Your task to perform on an android device: check data usage Image 0: 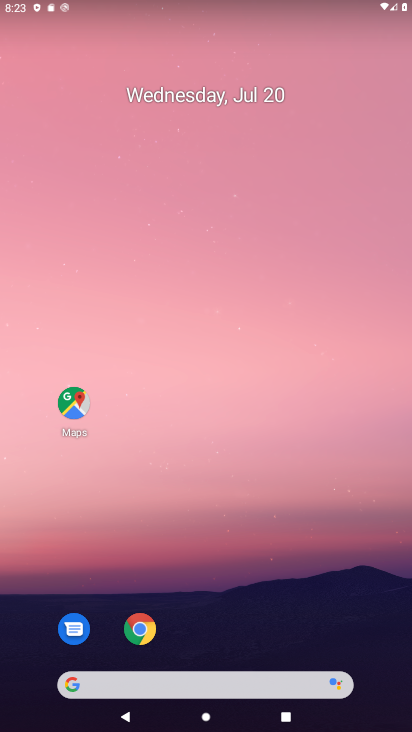
Step 0: drag from (204, 545) to (175, 190)
Your task to perform on an android device: check data usage Image 1: 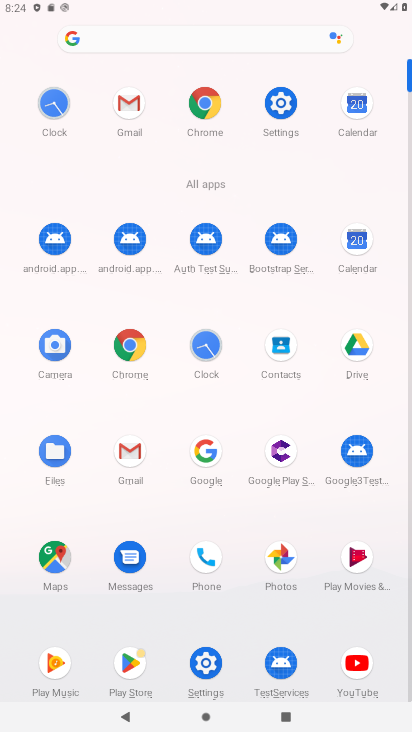
Step 1: click (268, 102)
Your task to perform on an android device: check data usage Image 2: 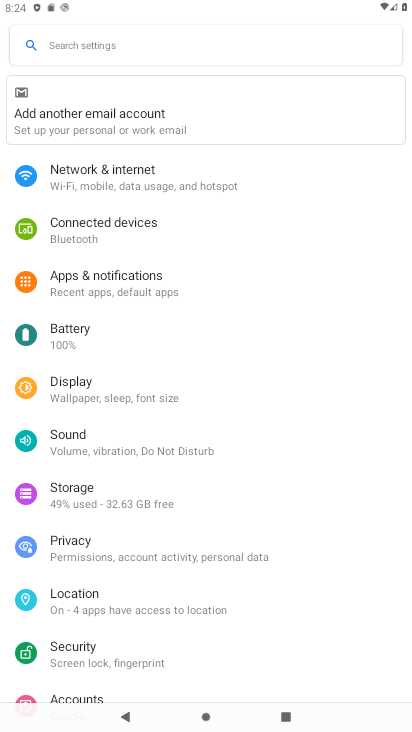
Step 2: click (101, 170)
Your task to perform on an android device: check data usage Image 3: 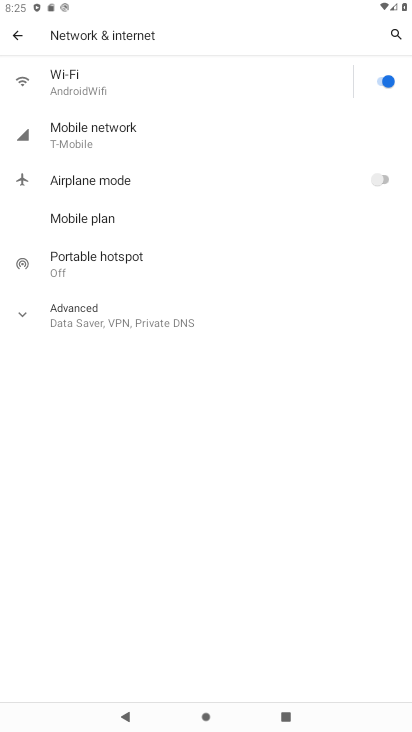
Step 3: click (167, 138)
Your task to perform on an android device: check data usage Image 4: 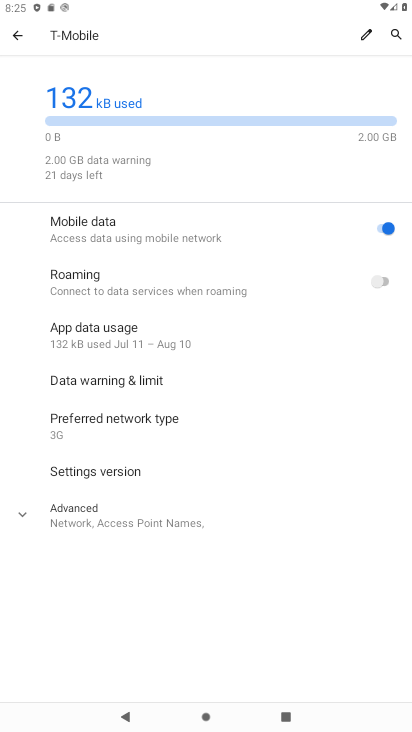
Step 4: click (157, 346)
Your task to perform on an android device: check data usage Image 5: 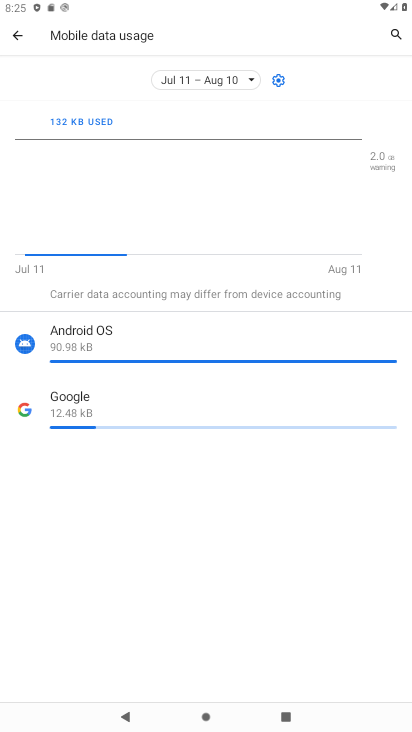
Step 5: task complete